Your task to perform on an android device: turn on airplane mode Image 0: 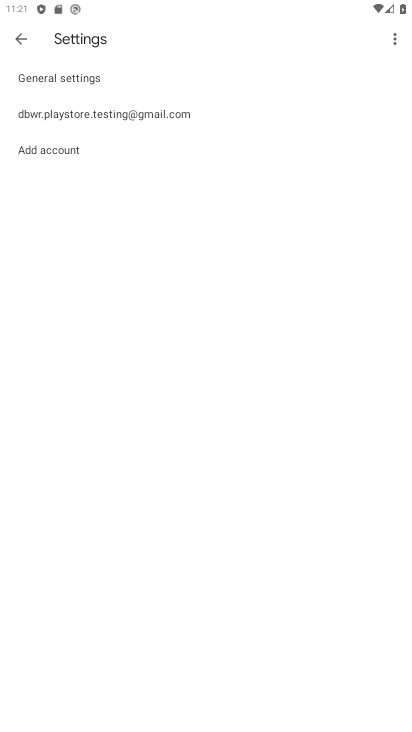
Step 0: press home button
Your task to perform on an android device: turn on airplane mode Image 1: 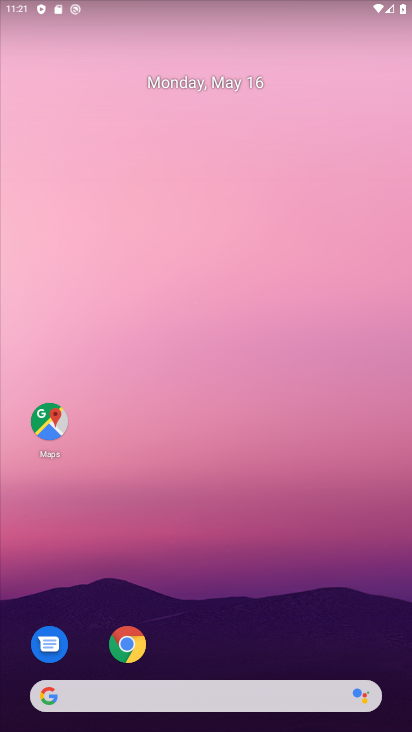
Step 1: drag from (194, 616) to (250, 229)
Your task to perform on an android device: turn on airplane mode Image 2: 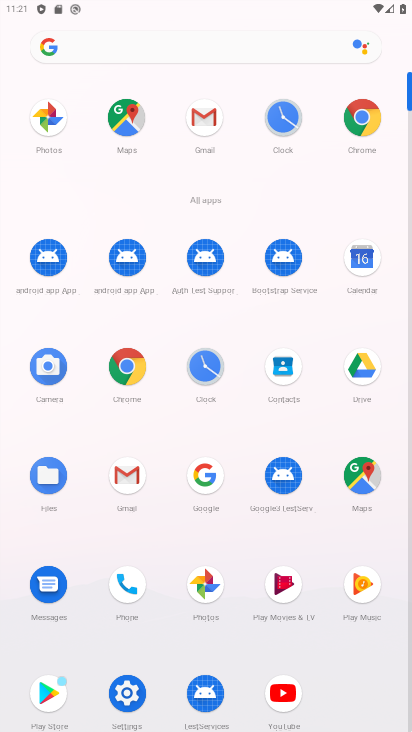
Step 2: click (119, 689)
Your task to perform on an android device: turn on airplane mode Image 3: 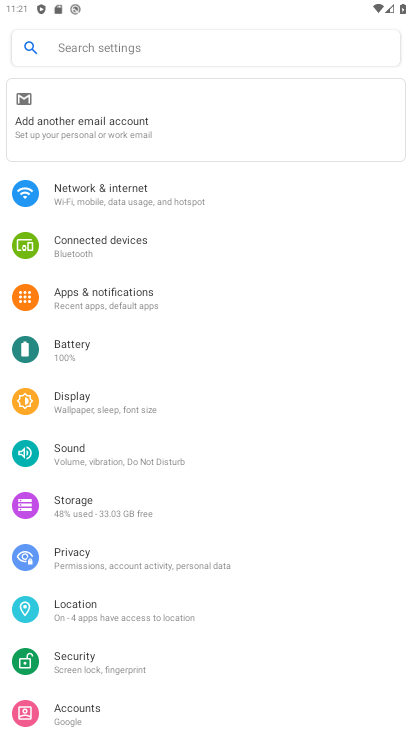
Step 3: click (146, 196)
Your task to perform on an android device: turn on airplane mode Image 4: 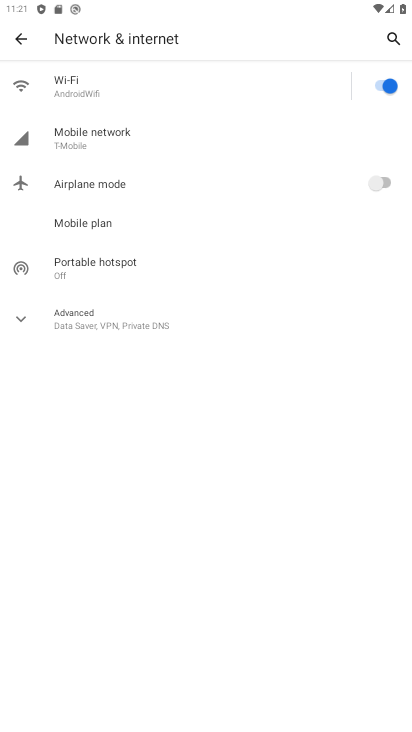
Step 4: click (381, 184)
Your task to perform on an android device: turn on airplane mode Image 5: 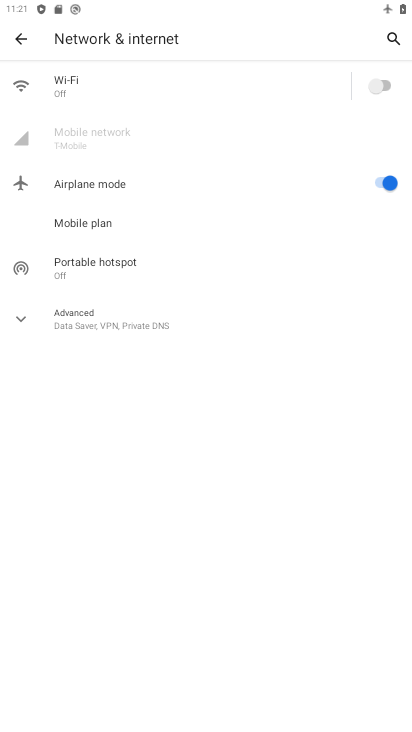
Step 5: task complete